Your task to perform on an android device: Open eBay Image 0: 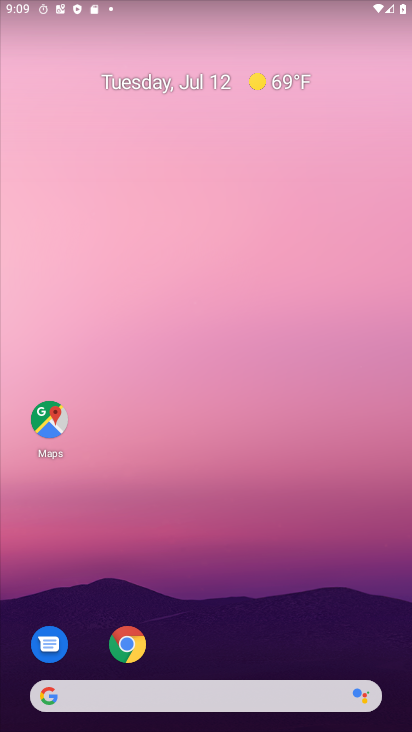
Step 0: press home button
Your task to perform on an android device: Open eBay Image 1: 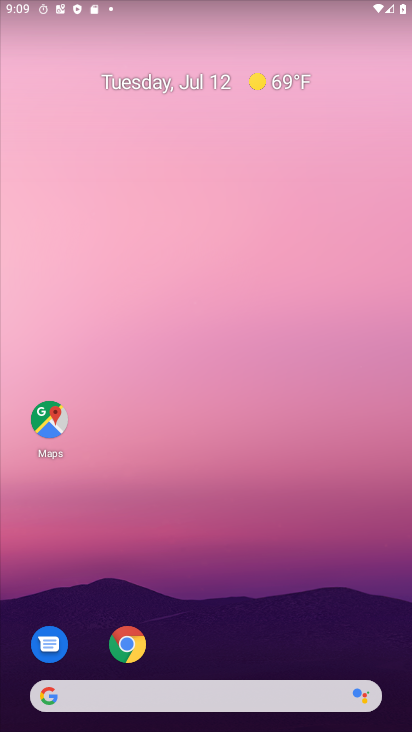
Step 1: drag from (202, 656) to (181, 218)
Your task to perform on an android device: Open eBay Image 2: 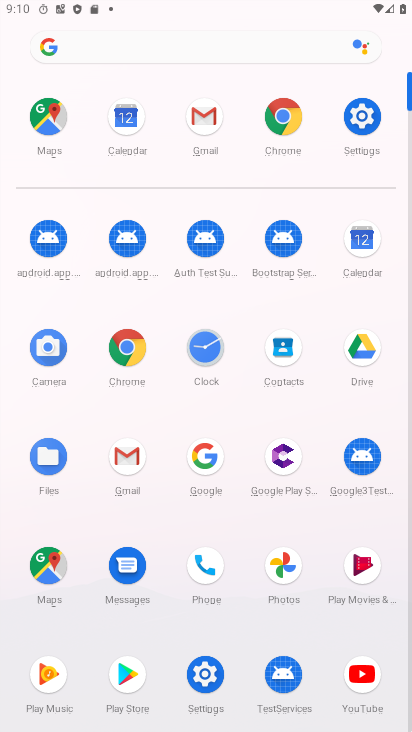
Step 2: click (285, 115)
Your task to perform on an android device: Open eBay Image 3: 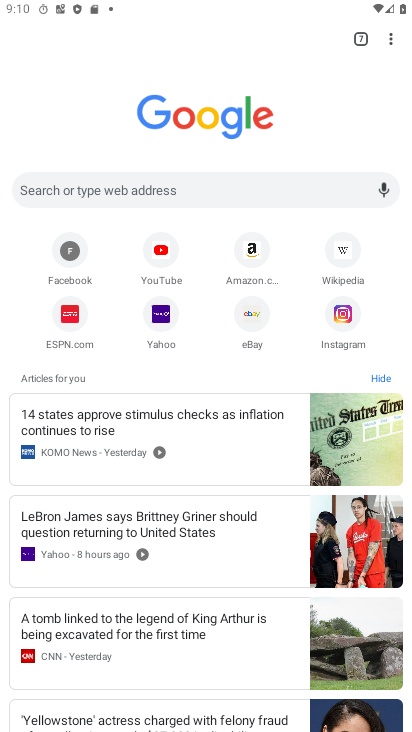
Step 3: click (265, 310)
Your task to perform on an android device: Open eBay Image 4: 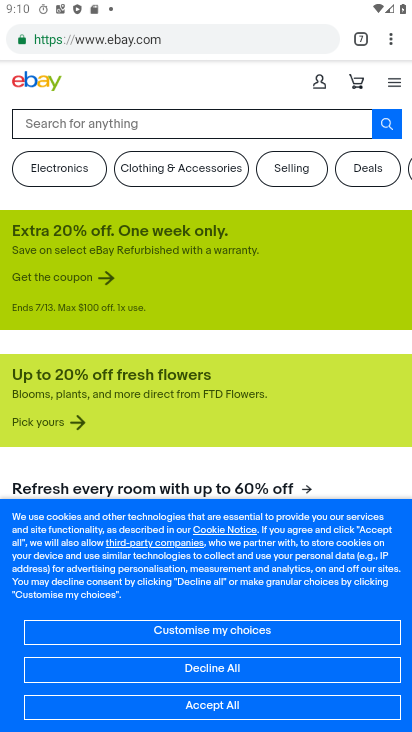
Step 4: click (226, 711)
Your task to perform on an android device: Open eBay Image 5: 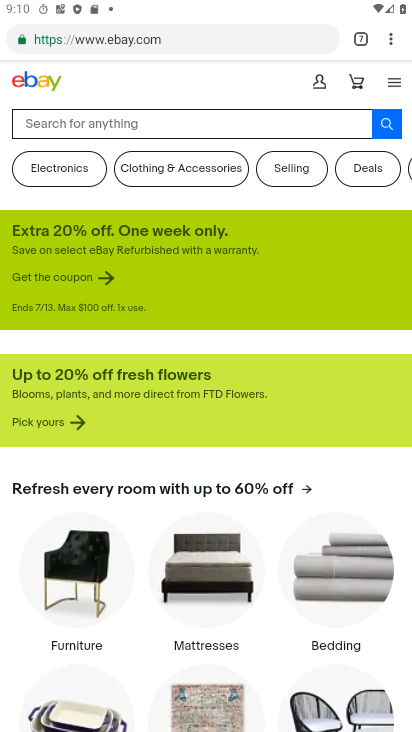
Step 5: task complete